Your task to perform on an android device: Search for vegetarian restaurants on Maps Image 0: 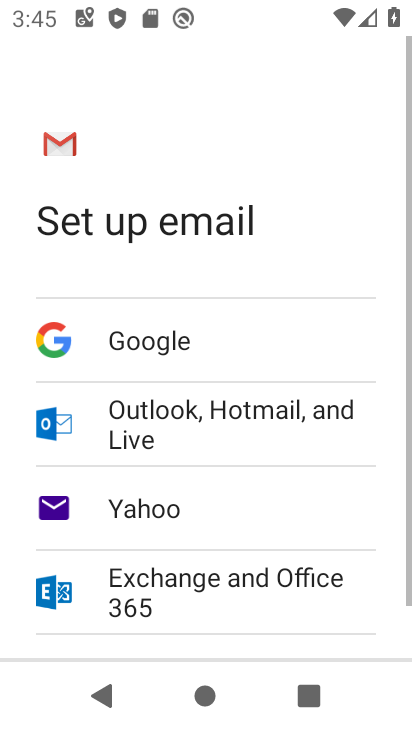
Step 0: press home button
Your task to perform on an android device: Search for vegetarian restaurants on Maps Image 1: 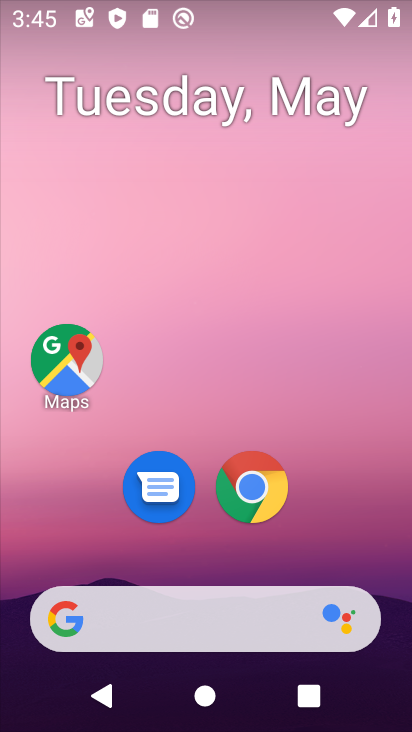
Step 1: click (69, 359)
Your task to perform on an android device: Search for vegetarian restaurants on Maps Image 2: 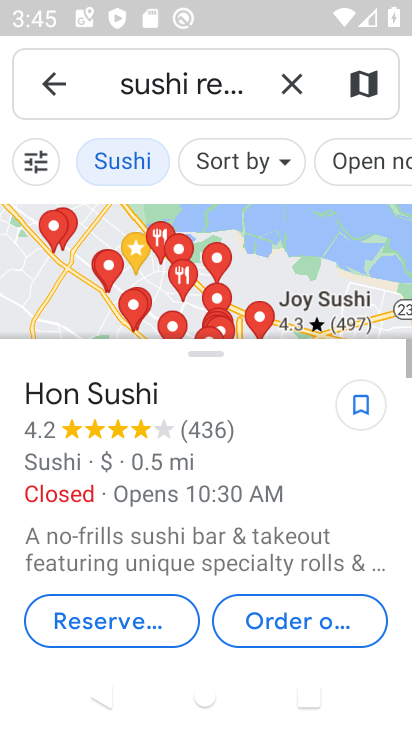
Step 2: click (157, 78)
Your task to perform on an android device: Search for vegetarian restaurants on Maps Image 3: 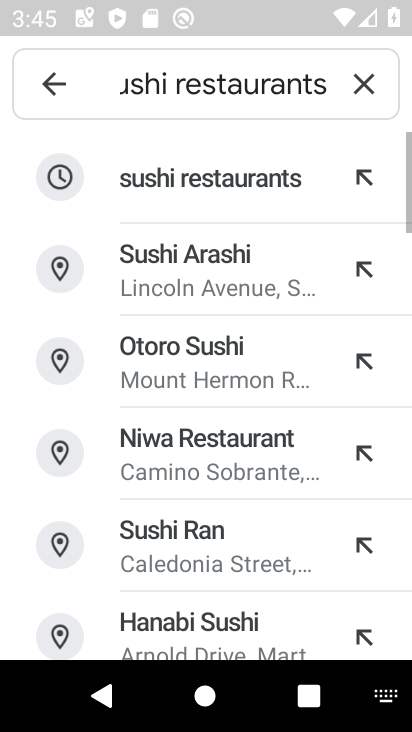
Step 3: click (137, 81)
Your task to perform on an android device: Search for vegetarian restaurants on Maps Image 4: 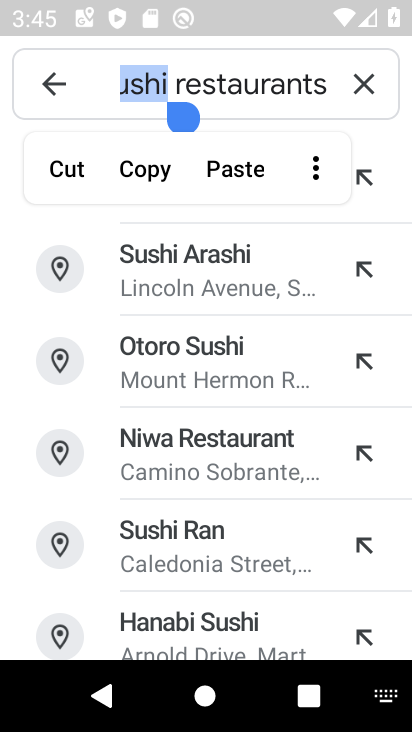
Step 4: type "vegetarian"
Your task to perform on an android device: Search for vegetarian restaurants on Maps Image 5: 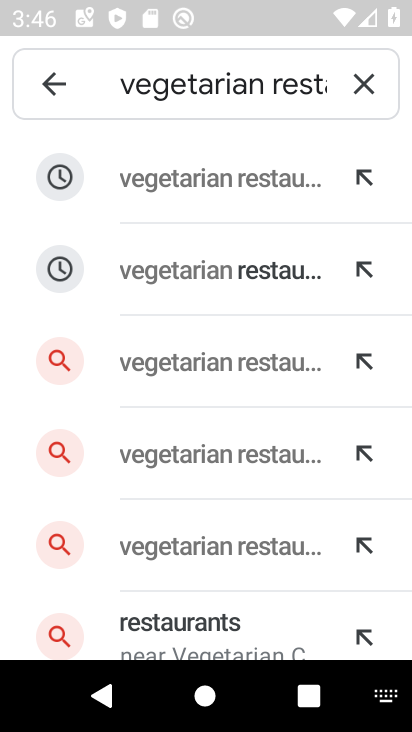
Step 5: click (210, 188)
Your task to perform on an android device: Search for vegetarian restaurants on Maps Image 6: 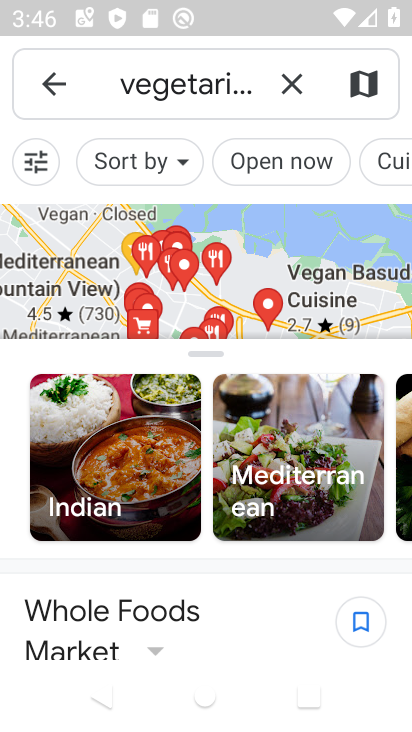
Step 6: task complete